Your task to perform on an android device: stop showing notifications on the lock screen Image 0: 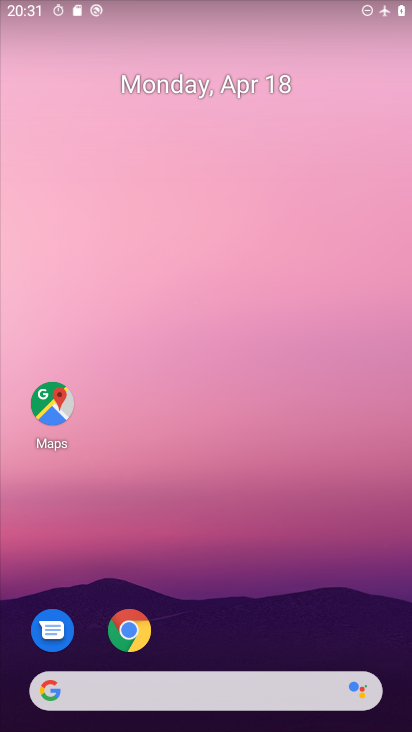
Step 0: drag from (226, 514) to (336, 20)
Your task to perform on an android device: stop showing notifications on the lock screen Image 1: 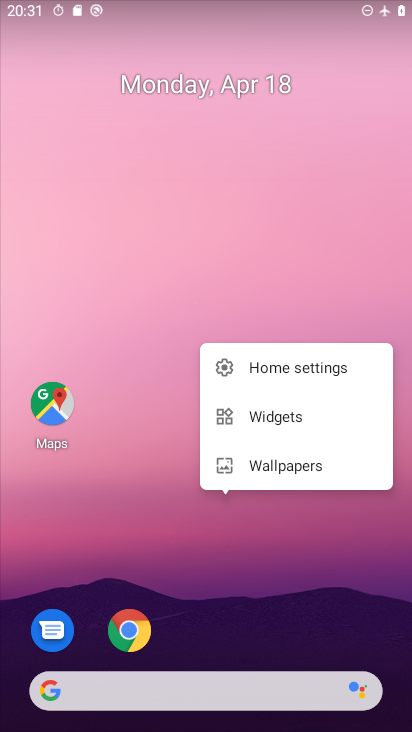
Step 1: click (225, 610)
Your task to perform on an android device: stop showing notifications on the lock screen Image 2: 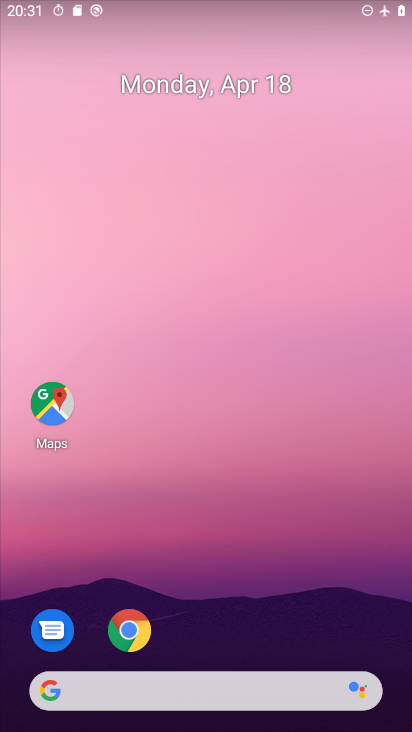
Step 2: drag from (218, 643) to (407, 498)
Your task to perform on an android device: stop showing notifications on the lock screen Image 3: 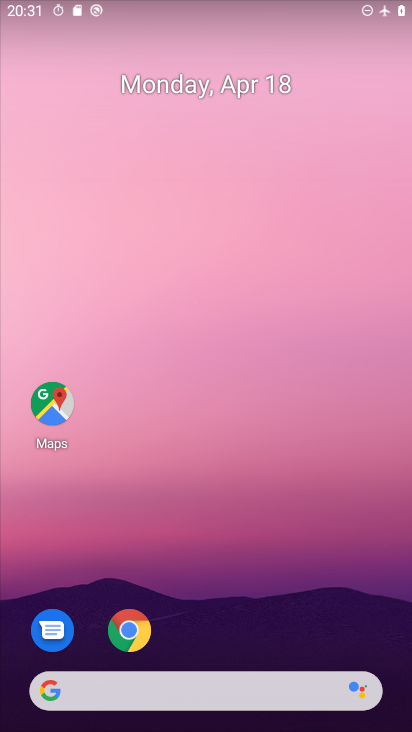
Step 3: drag from (233, 605) to (330, 14)
Your task to perform on an android device: stop showing notifications on the lock screen Image 4: 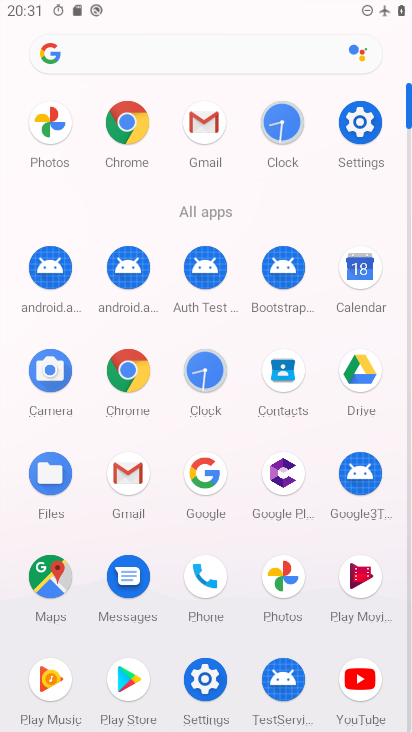
Step 4: click (355, 141)
Your task to perform on an android device: stop showing notifications on the lock screen Image 5: 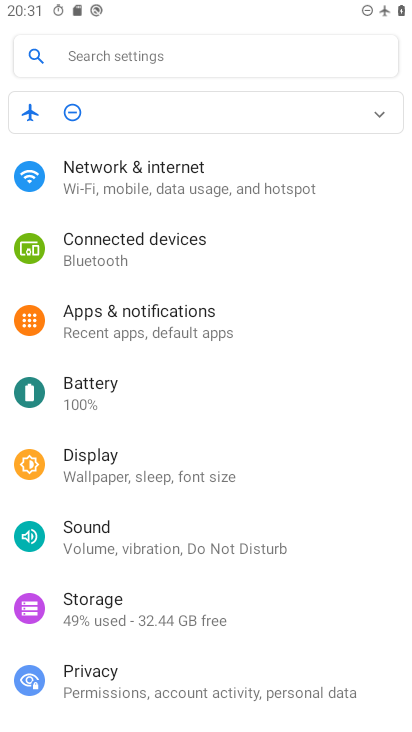
Step 5: click (169, 322)
Your task to perform on an android device: stop showing notifications on the lock screen Image 6: 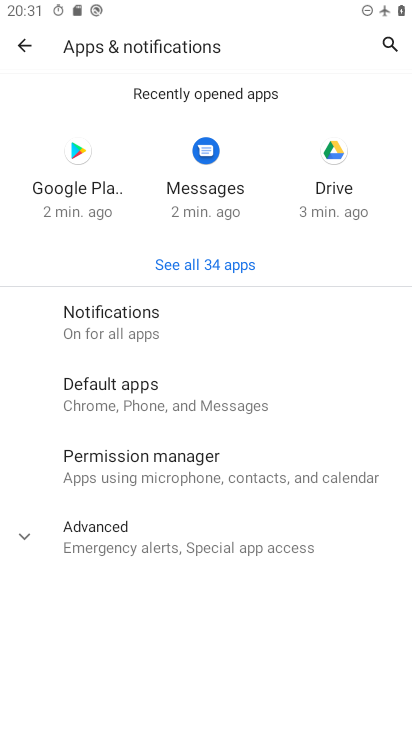
Step 6: click (147, 337)
Your task to perform on an android device: stop showing notifications on the lock screen Image 7: 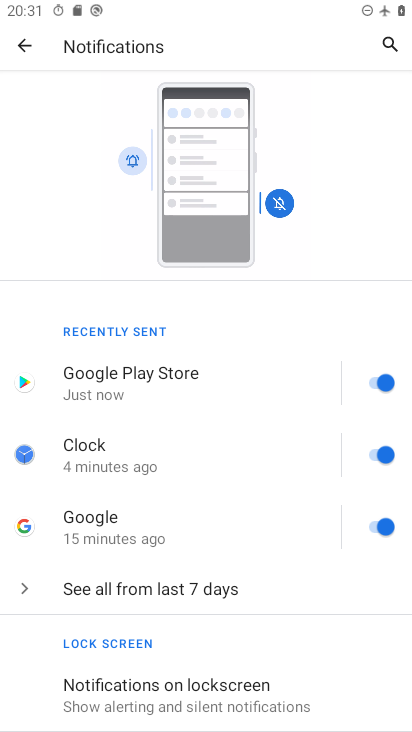
Step 7: click (167, 684)
Your task to perform on an android device: stop showing notifications on the lock screen Image 8: 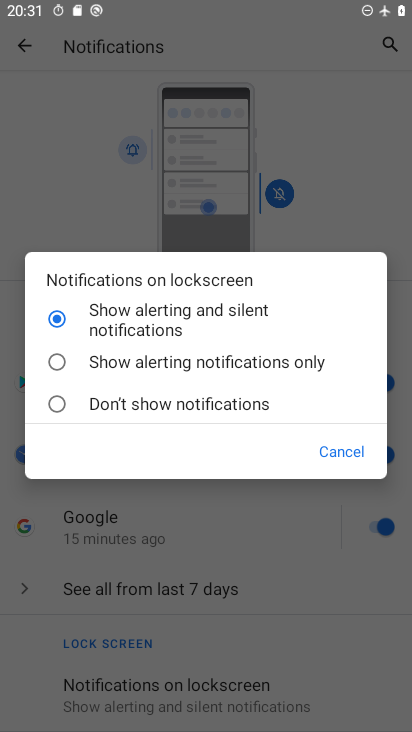
Step 8: click (125, 402)
Your task to perform on an android device: stop showing notifications on the lock screen Image 9: 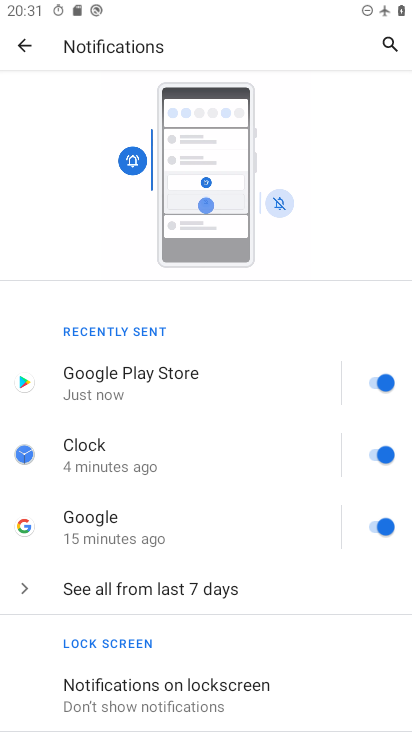
Step 9: task complete